Your task to perform on an android device: find which apps use the phone's location Image 0: 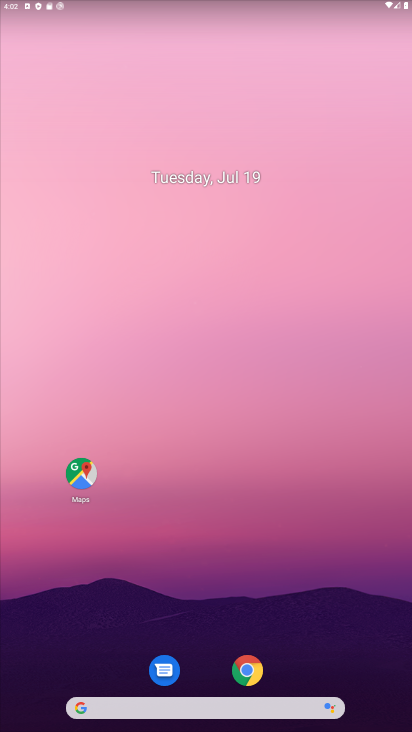
Step 0: drag from (297, 705) to (299, 187)
Your task to perform on an android device: find which apps use the phone's location Image 1: 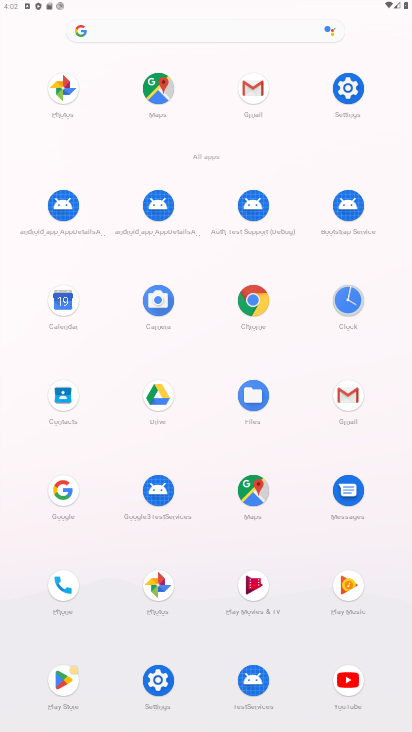
Step 1: click (359, 94)
Your task to perform on an android device: find which apps use the phone's location Image 2: 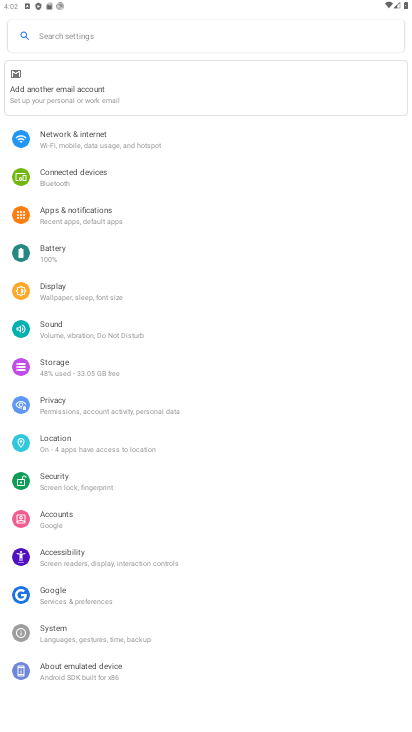
Step 2: click (55, 431)
Your task to perform on an android device: find which apps use the phone's location Image 3: 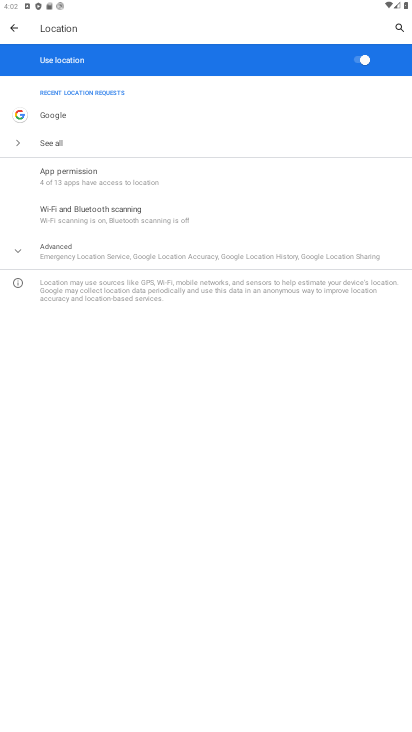
Step 3: click (91, 169)
Your task to perform on an android device: find which apps use the phone's location Image 4: 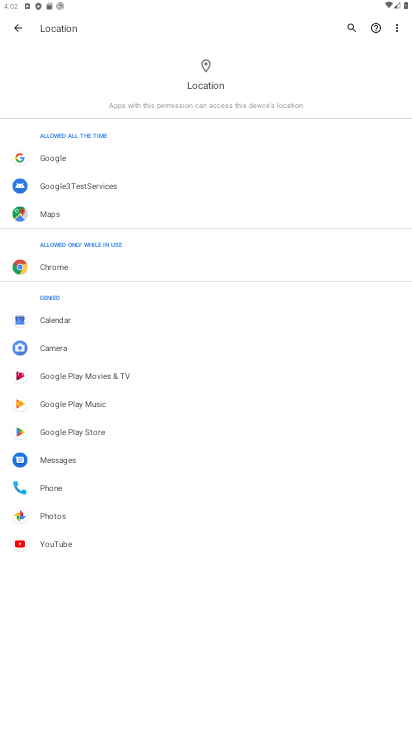
Step 4: task complete